Your task to perform on an android device: toggle notifications settings in the gmail app Image 0: 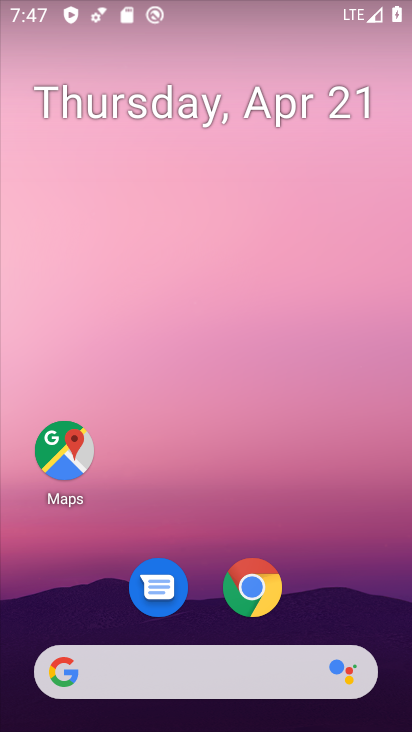
Step 0: drag from (362, 573) to (334, 82)
Your task to perform on an android device: toggle notifications settings in the gmail app Image 1: 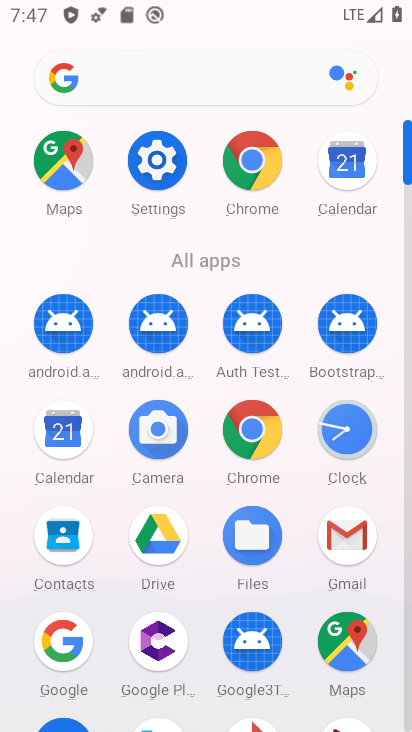
Step 1: click (327, 538)
Your task to perform on an android device: toggle notifications settings in the gmail app Image 2: 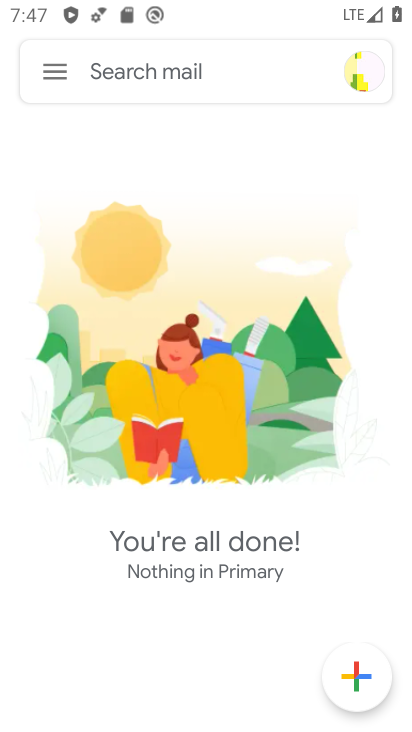
Step 2: click (49, 69)
Your task to perform on an android device: toggle notifications settings in the gmail app Image 3: 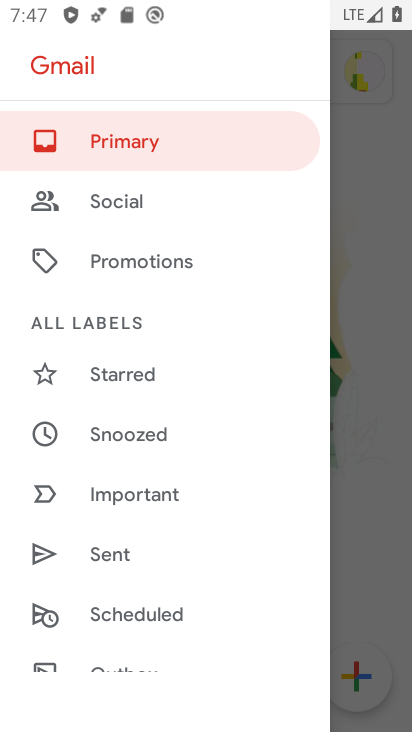
Step 3: drag from (270, 498) to (261, 355)
Your task to perform on an android device: toggle notifications settings in the gmail app Image 4: 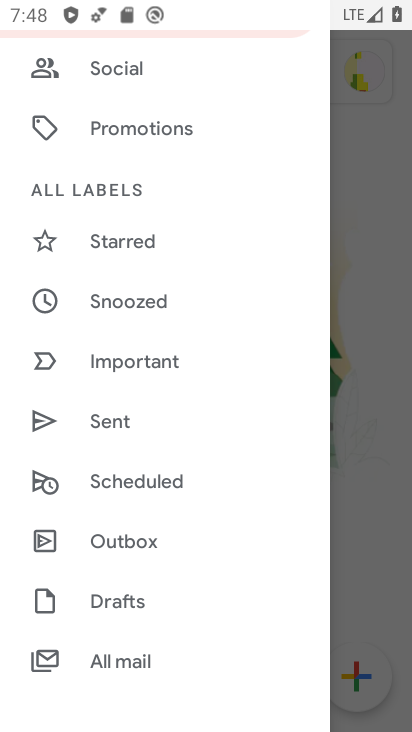
Step 4: drag from (266, 472) to (267, 349)
Your task to perform on an android device: toggle notifications settings in the gmail app Image 5: 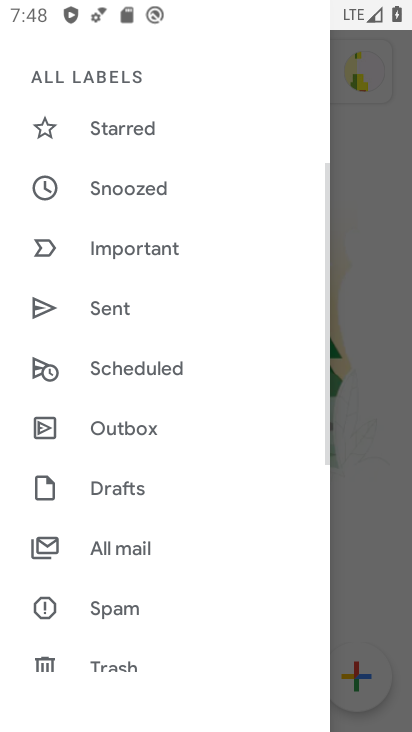
Step 5: drag from (265, 402) to (268, 238)
Your task to perform on an android device: toggle notifications settings in the gmail app Image 6: 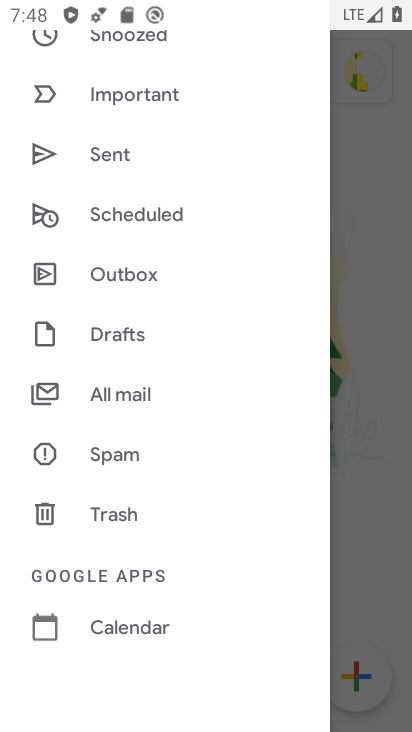
Step 6: drag from (234, 559) to (264, 249)
Your task to perform on an android device: toggle notifications settings in the gmail app Image 7: 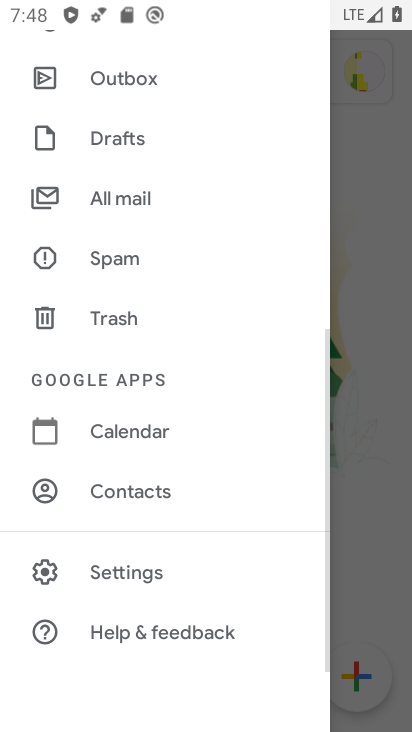
Step 7: click (86, 570)
Your task to perform on an android device: toggle notifications settings in the gmail app Image 8: 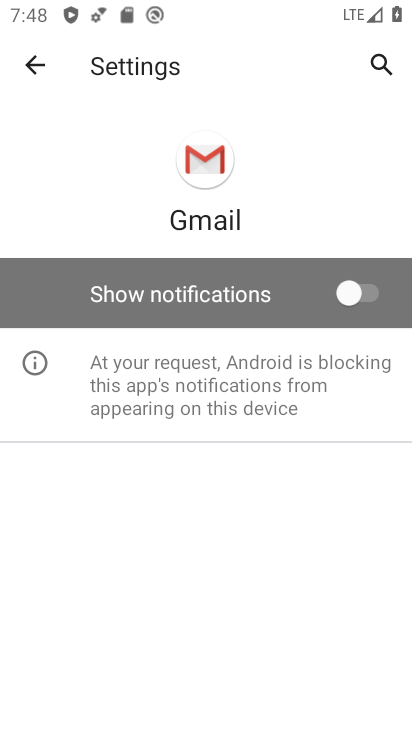
Step 8: click (369, 282)
Your task to perform on an android device: toggle notifications settings in the gmail app Image 9: 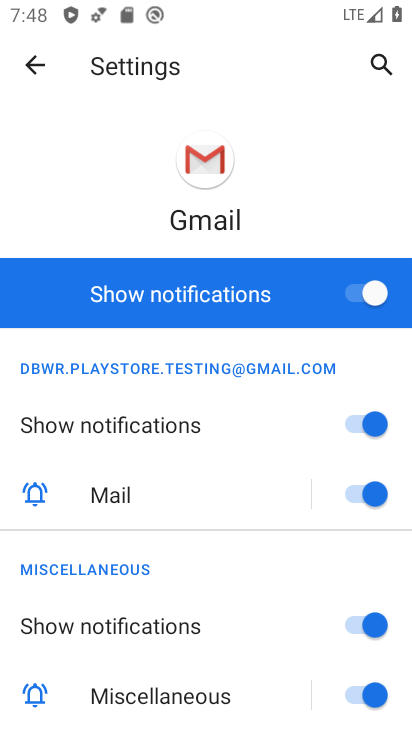
Step 9: task complete